Your task to perform on an android device: What's the weather going to be tomorrow? Image 0: 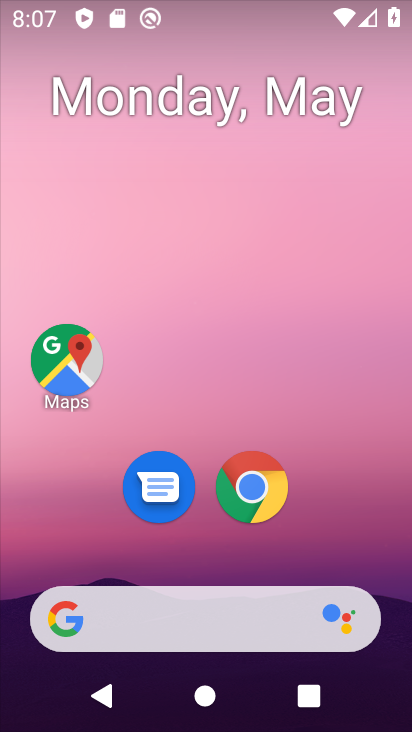
Step 0: drag from (365, 484) to (363, 0)
Your task to perform on an android device: What's the weather going to be tomorrow? Image 1: 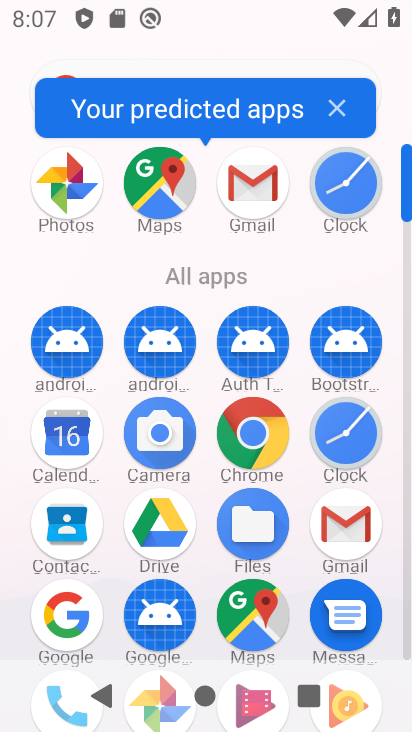
Step 1: click (80, 624)
Your task to perform on an android device: What's the weather going to be tomorrow? Image 2: 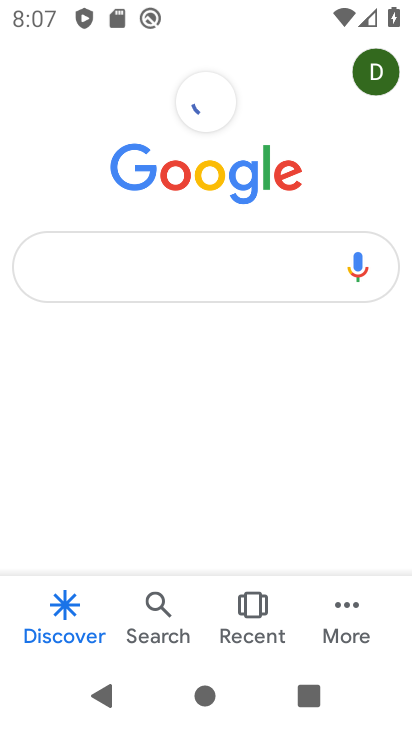
Step 2: click (163, 275)
Your task to perform on an android device: What's the weather going to be tomorrow? Image 3: 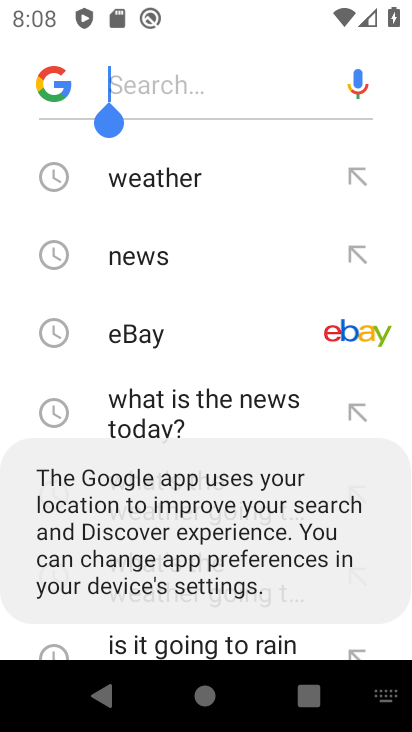
Step 3: click (167, 172)
Your task to perform on an android device: What's the weather going to be tomorrow? Image 4: 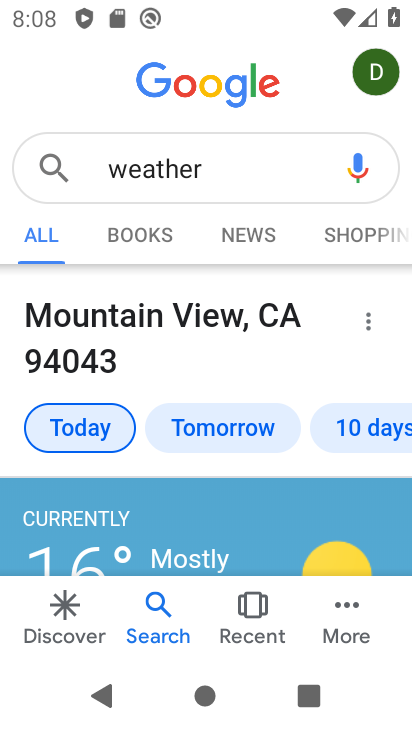
Step 4: click (251, 435)
Your task to perform on an android device: What's the weather going to be tomorrow? Image 5: 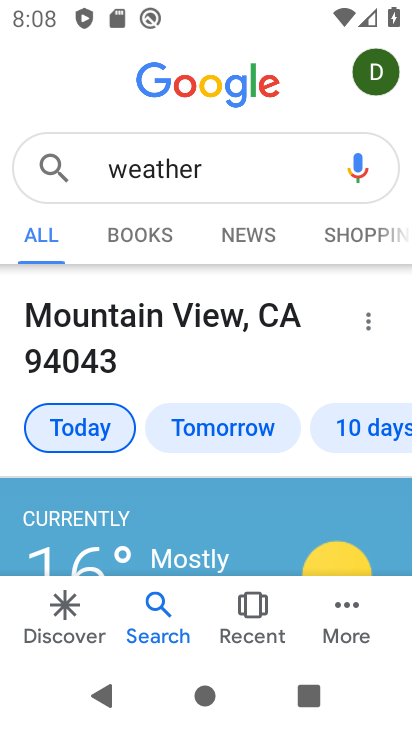
Step 5: click (251, 435)
Your task to perform on an android device: What's the weather going to be tomorrow? Image 6: 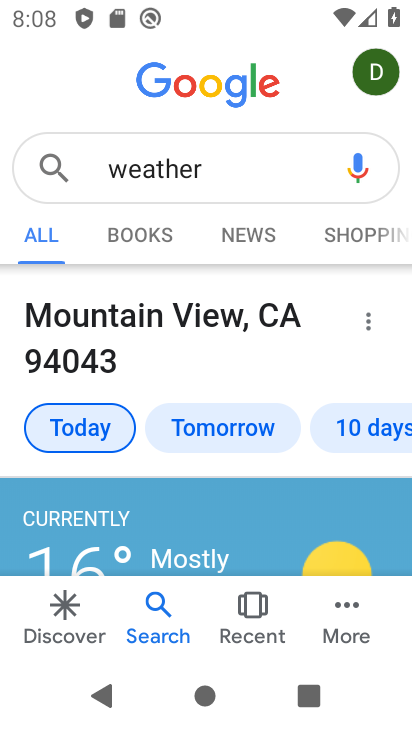
Step 6: click (251, 435)
Your task to perform on an android device: What's the weather going to be tomorrow? Image 7: 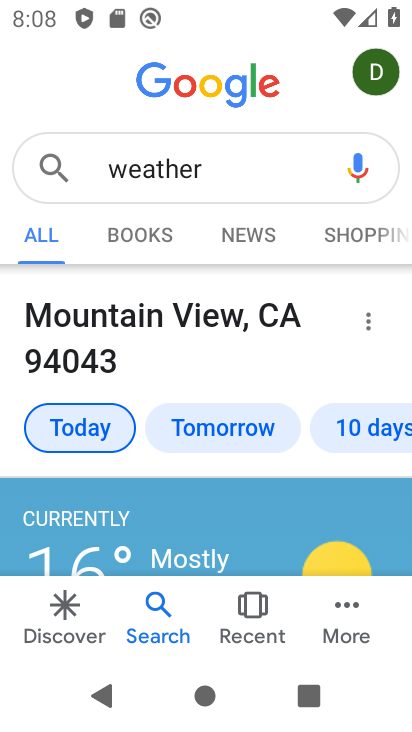
Step 7: drag from (242, 519) to (252, 284)
Your task to perform on an android device: What's the weather going to be tomorrow? Image 8: 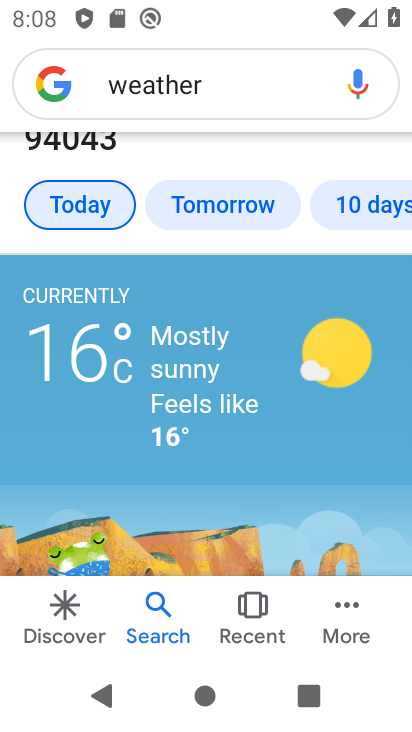
Step 8: click (221, 204)
Your task to perform on an android device: What's the weather going to be tomorrow? Image 9: 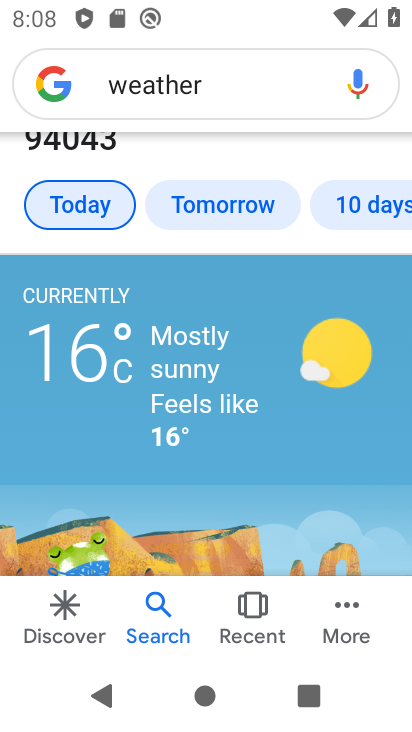
Step 9: task complete